Your task to perform on an android device: Open calendar and show me the first week of next month Image 0: 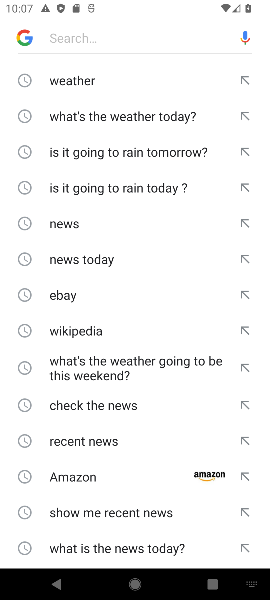
Step 0: press home button
Your task to perform on an android device: Open calendar and show me the first week of next month Image 1: 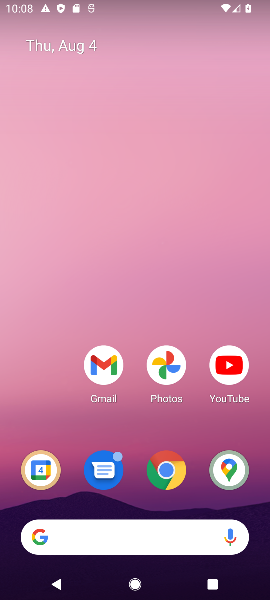
Step 1: drag from (131, 425) to (158, 26)
Your task to perform on an android device: Open calendar and show me the first week of next month Image 2: 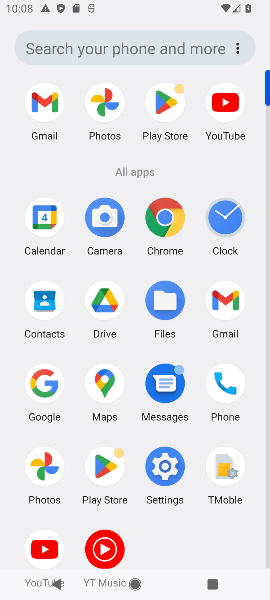
Step 2: click (35, 222)
Your task to perform on an android device: Open calendar and show me the first week of next month Image 3: 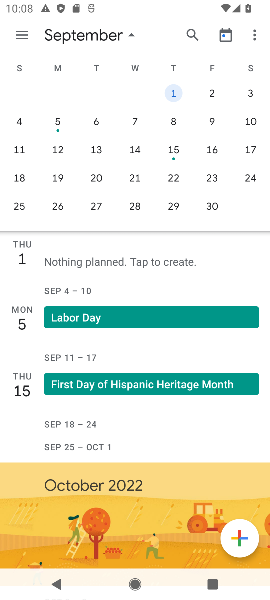
Step 3: task complete